Your task to perform on an android device: toggle javascript in the chrome app Image 0: 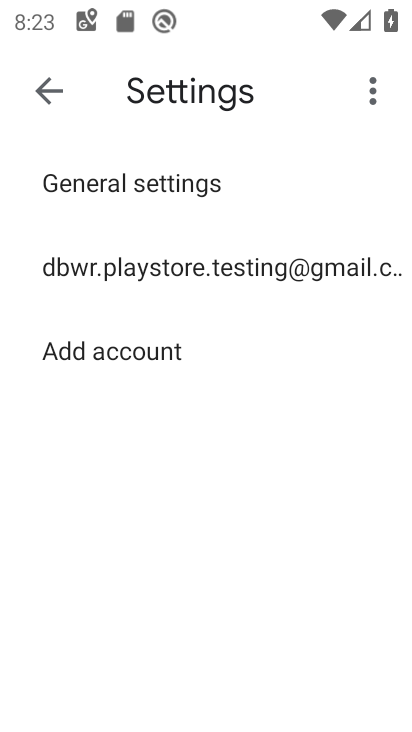
Step 0: press home button
Your task to perform on an android device: toggle javascript in the chrome app Image 1: 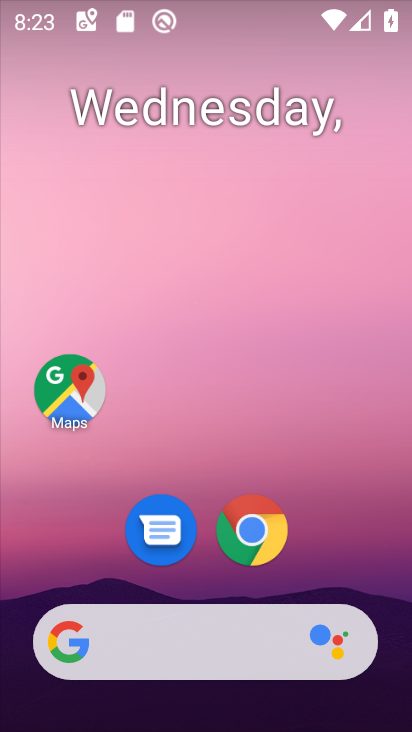
Step 1: drag from (396, 654) to (360, 0)
Your task to perform on an android device: toggle javascript in the chrome app Image 2: 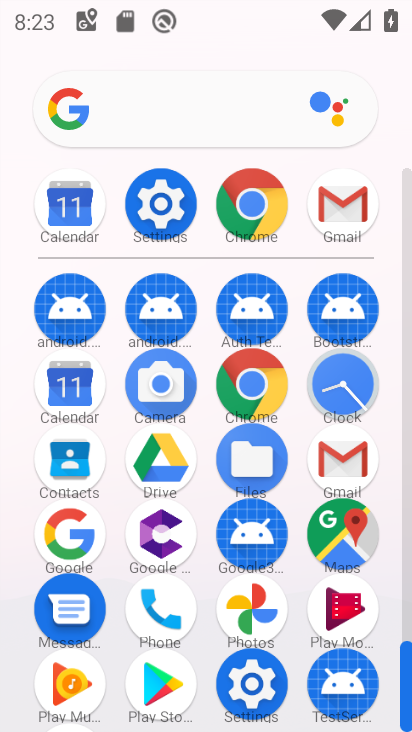
Step 2: click (253, 179)
Your task to perform on an android device: toggle javascript in the chrome app Image 3: 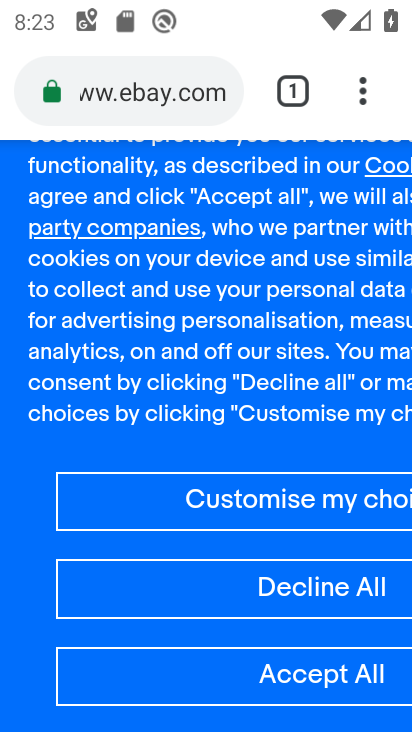
Step 3: press back button
Your task to perform on an android device: toggle javascript in the chrome app Image 4: 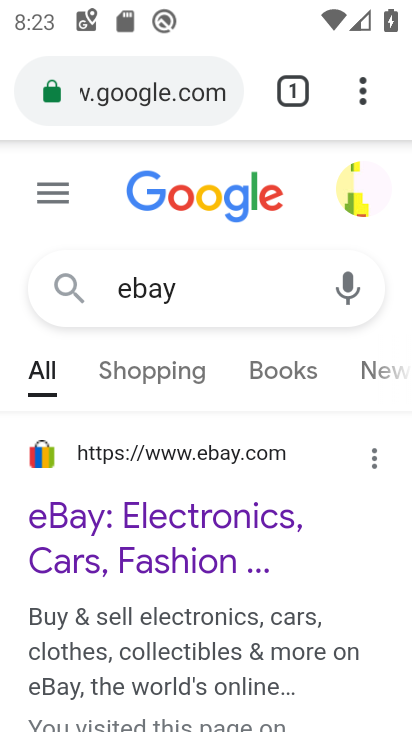
Step 4: press back button
Your task to perform on an android device: toggle javascript in the chrome app Image 5: 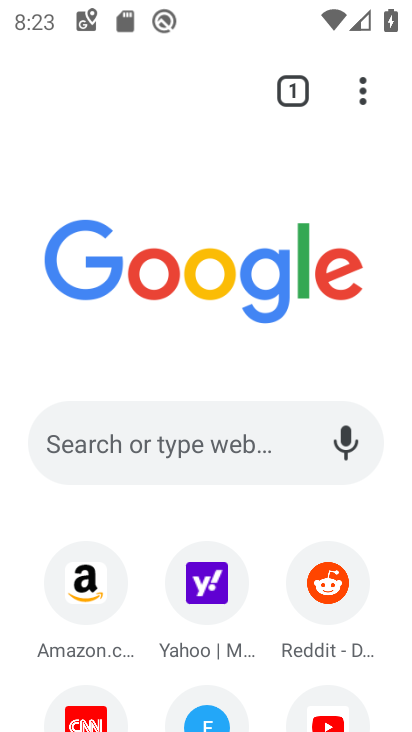
Step 5: click (352, 86)
Your task to perform on an android device: toggle javascript in the chrome app Image 6: 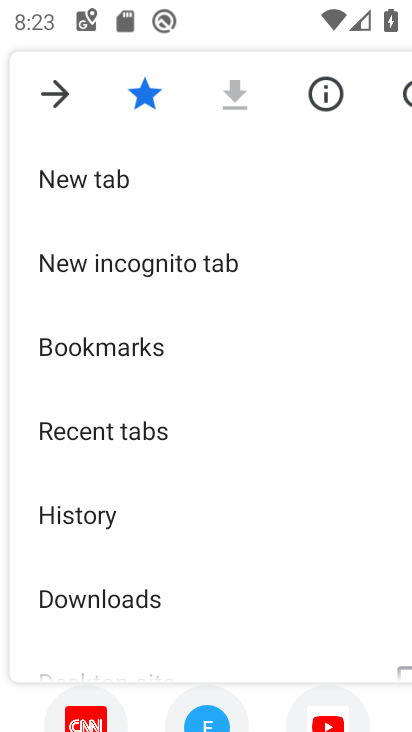
Step 6: drag from (154, 618) to (222, 164)
Your task to perform on an android device: toggle javascript in the chrome app Image 7: 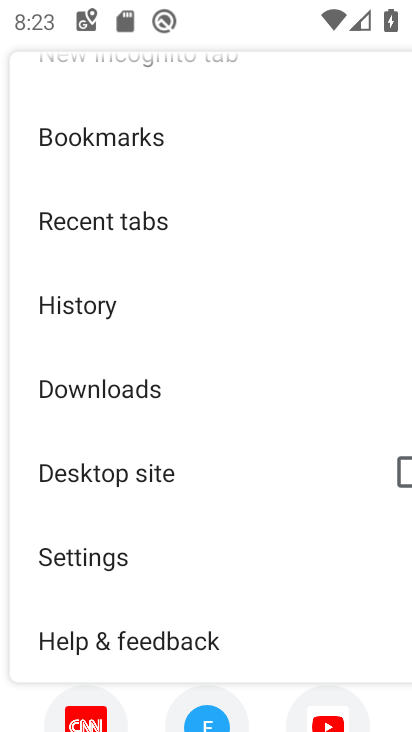
Step 7: click (69, 543)
Your task to perform on an android device: toggle javascript in the chrome app Image 8: 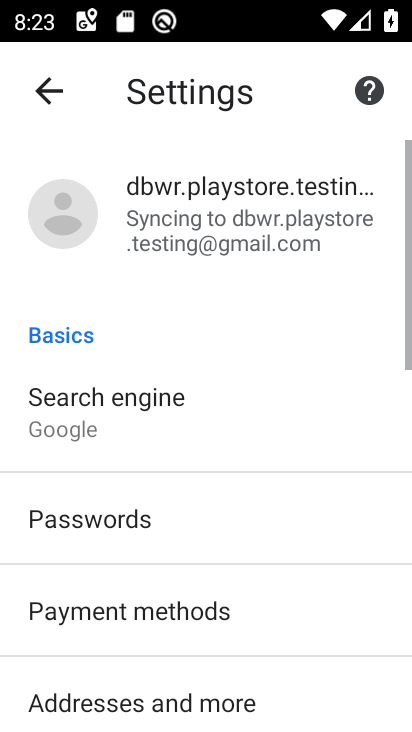
Step 8: drag from (101, 625) to (200, 142)
Your task to perform on an android device: toggle javascript in the chrome app Image 9: 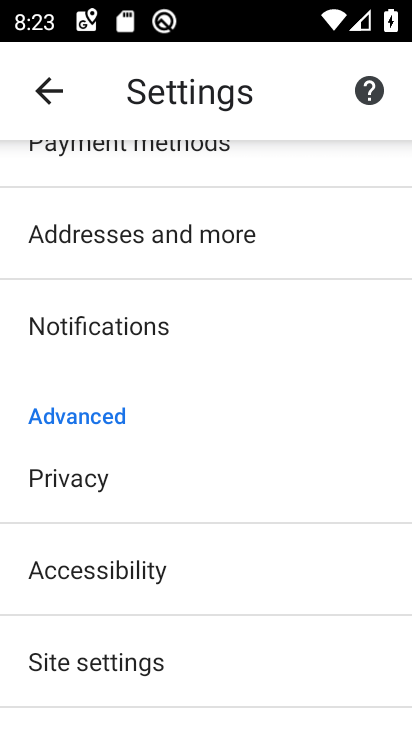
Step 9: click (144, 669)
Your task to perform on an android device: toggle javascript in the chrome app Image 10: 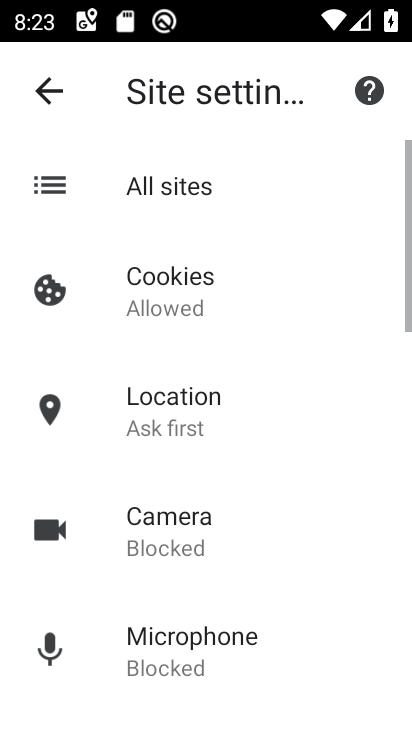
Step 10: drag from (144, 651) to (216, 211)
Your task to perform on an android device: toggle javascript in the chrome app Image 11: 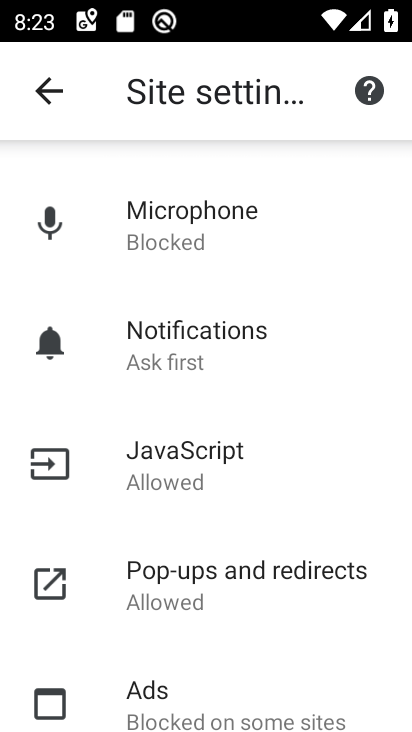
Step 11: click (243, 450)
Your task to perform on an android device: toggle javascript in the chrome app Image 12: 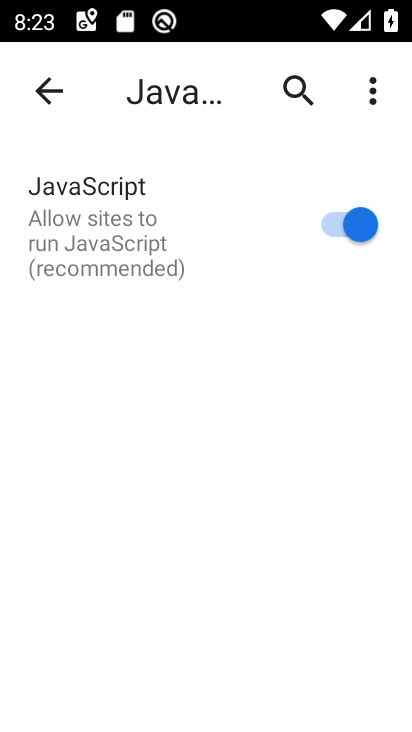
Step 12: click (337, 250)
Your task to perform on an android device: toggle javascript in the chrome app Image 13: 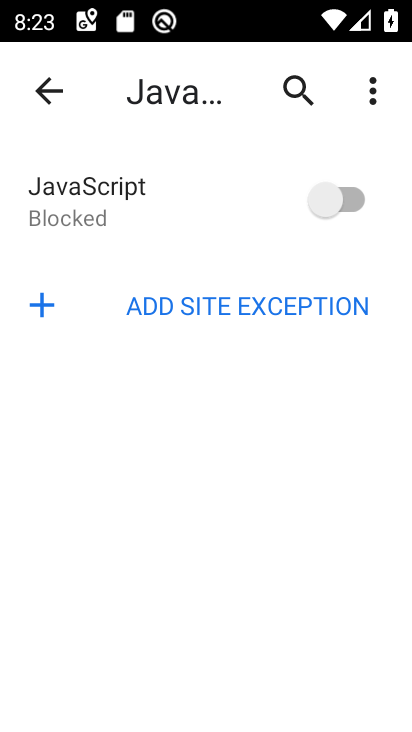
Step 13: task complete